Your task to perform on an android device: Open settings Image 0: 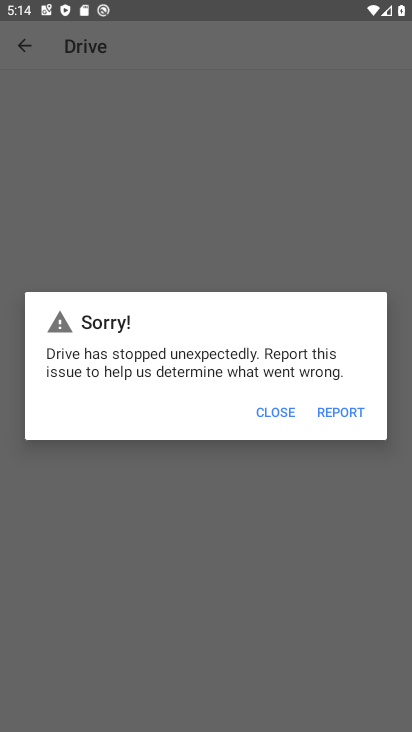
Step 0: press home button
Your task to perform on an android device: Open settings Image 1: 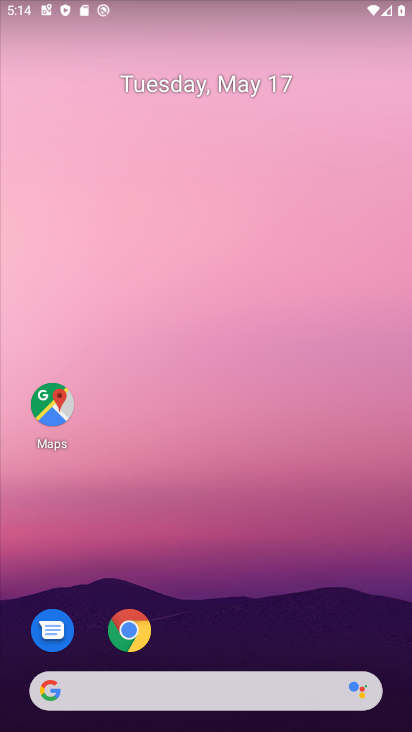
Step 1: drag from (253, 640) to (282, 223)
Your task to perform on an android device: Open settings Image 2: 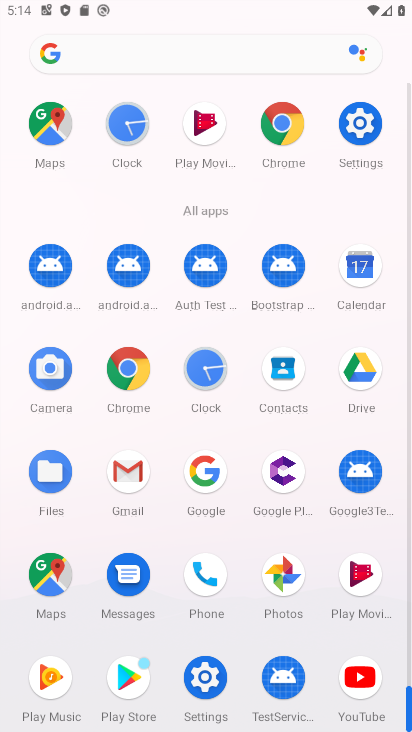
Step 2: click (379, 127)
Your task to perform on an android device: Open settings Image 3: 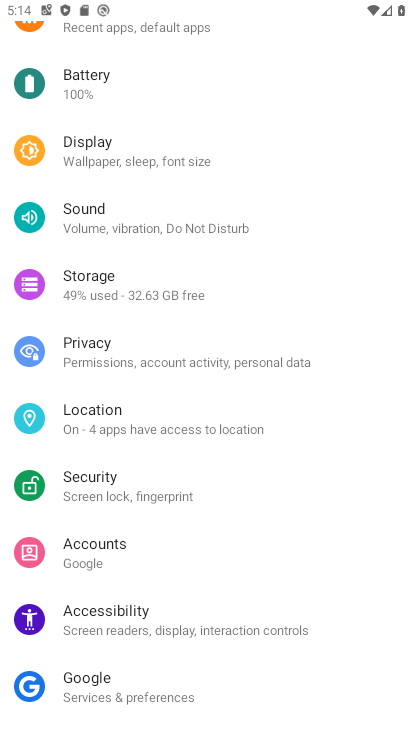
Step 3: task complete